Your task to perform on an android device: Go to battery settings Image 0: 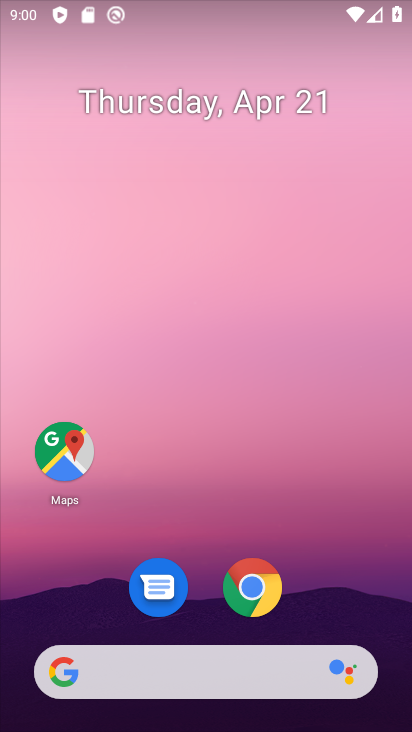
Step 0: drag from (189, 510) to (260, 97)
Your task to perform on an android device: Go to battery settings Image 1: 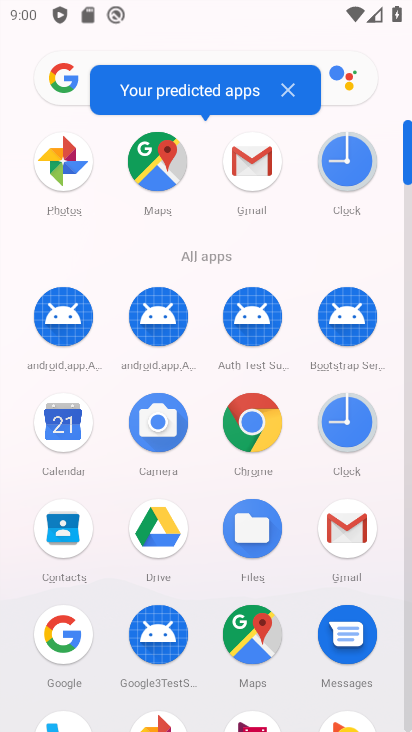
Step 1: drag from (208, 547) to (342, 52)
Your task to perform on an android device: Go to battery settings Image 2: 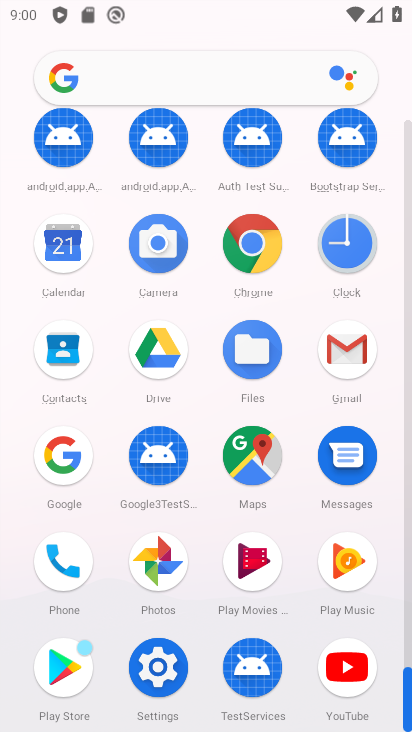
Step 2: click (165, 660)
Your task to perform on an android device: Go to battery settings Image 3: 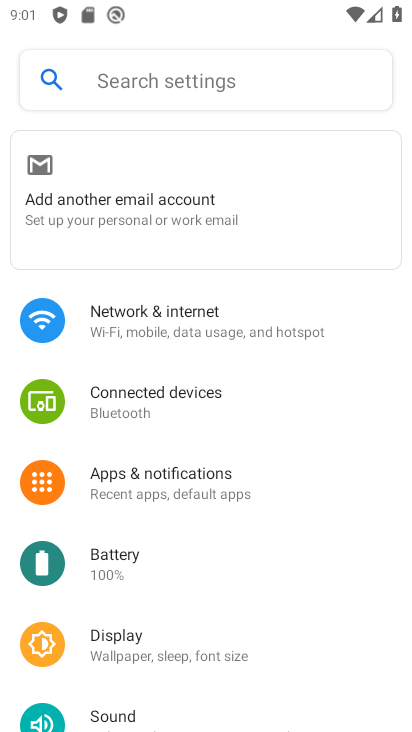
Step 3: click (144, 563)
Your task to perform on an android device: Go to battery settings Image 4: 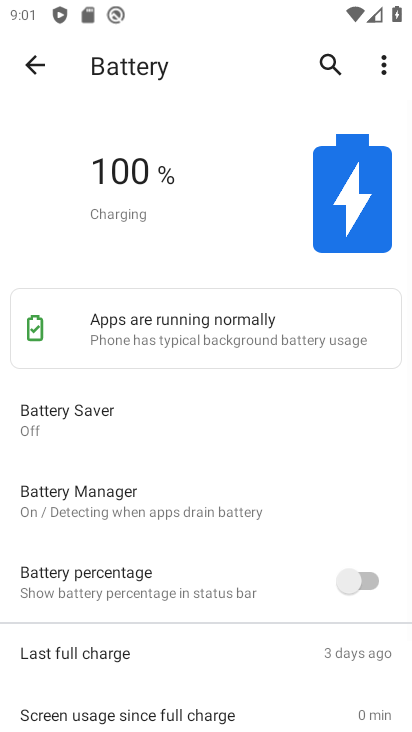
Step 4: task complete